Your task to perform on an android device: find snoozed emails in the gmail app Image 0: 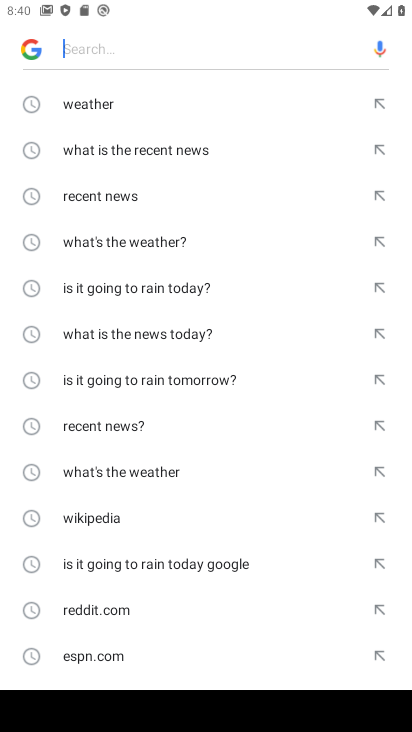
Step 0: press home button
Your task to perform on an android device: find snoozed emails in the gmail app Image 1: 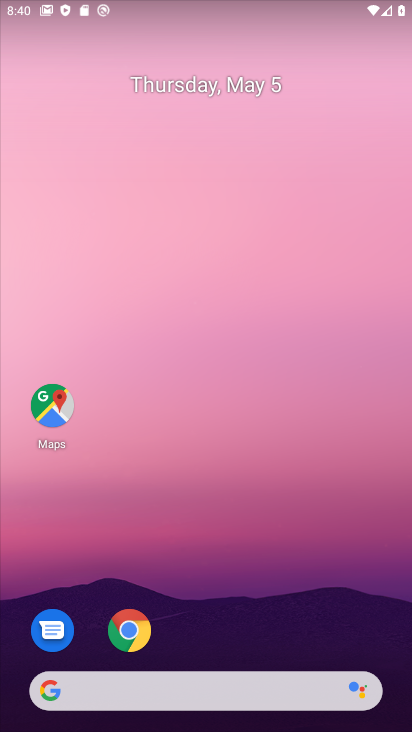
Step 1: drag from (235, 658) to (258, 76)
Your task to perform on an android device: find snoozed emails in the gmail app Image 2: 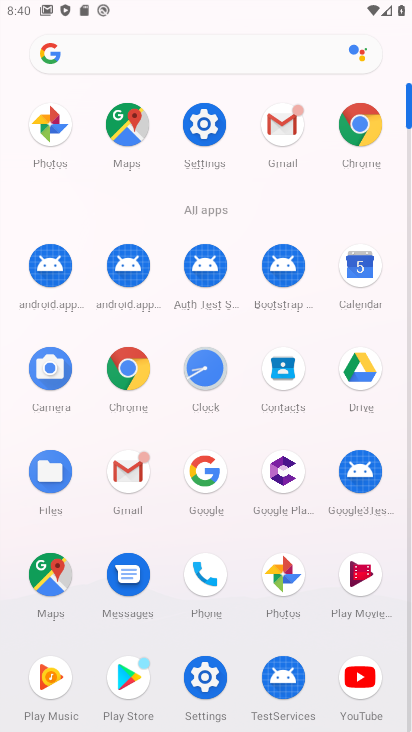
Step 2: click (135, 477)
Your task to perform on an android device: find snoozed emails in the gmail app Image 3: 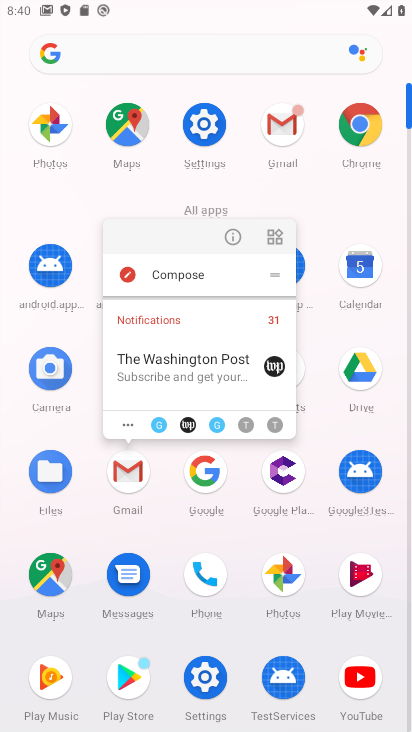
Step 3: click (118, 473)
Your task to perform on an android device: find snoozed emails in the gmail app Image 4: 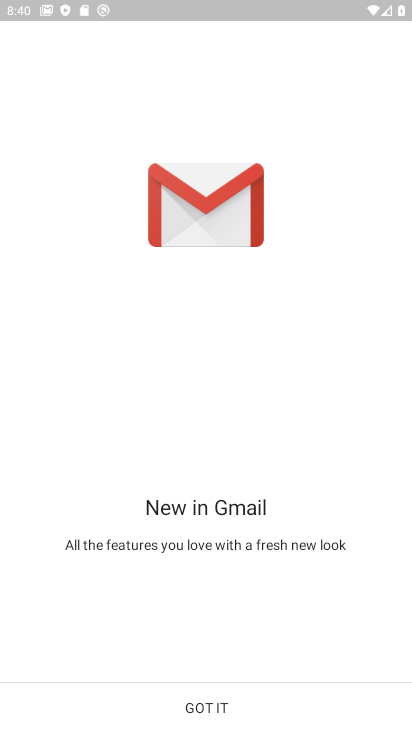
Step 4: click (227, 705)
Your task to perform on an android device: find snoozed emails in the gmail app Image 5: 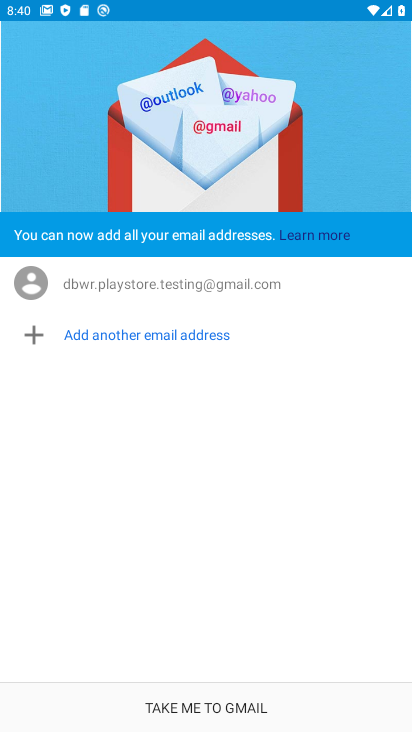
Step 5: click (226, 699)
Your task to perform on an android device: find snoozed emails in the gmail app Image 6: 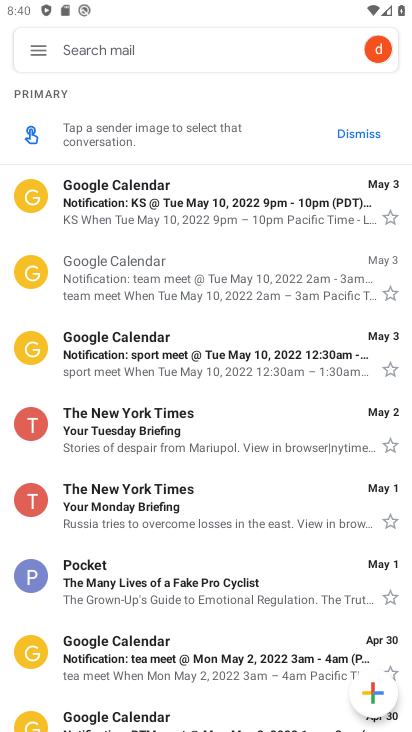
Step 6: click (36, 51)
Your task to perform on an android device: find snoozed emails in the gmail app Image 7: 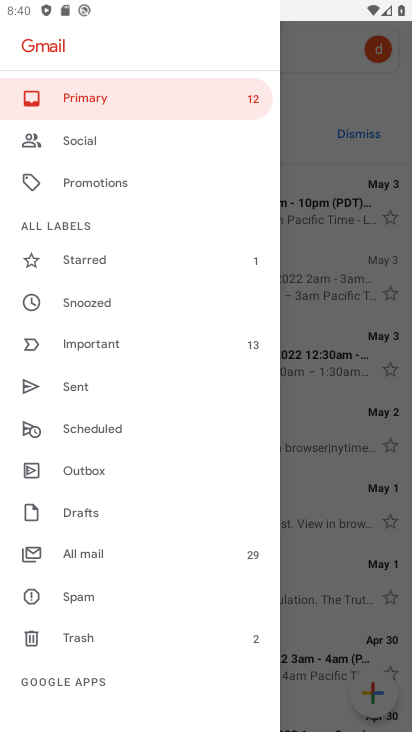
Step 7: click (87, 300)
Your task to perform on an android device: find snoozed emails in the gmail app Image 8: 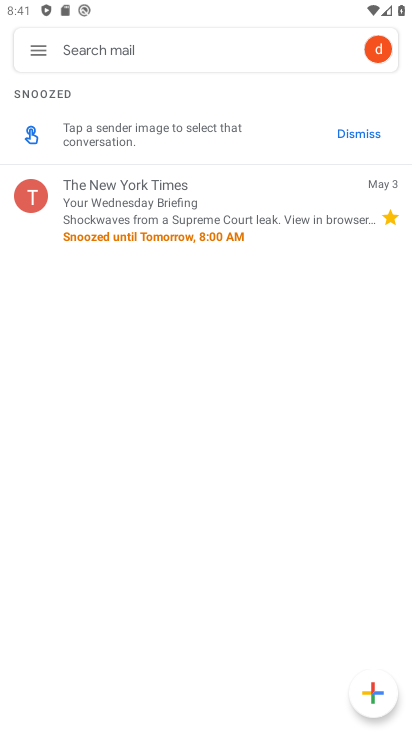
Step 8: task complete